Your task to perform on an android device: remove spam from my inbox in the gmail app Image 0: 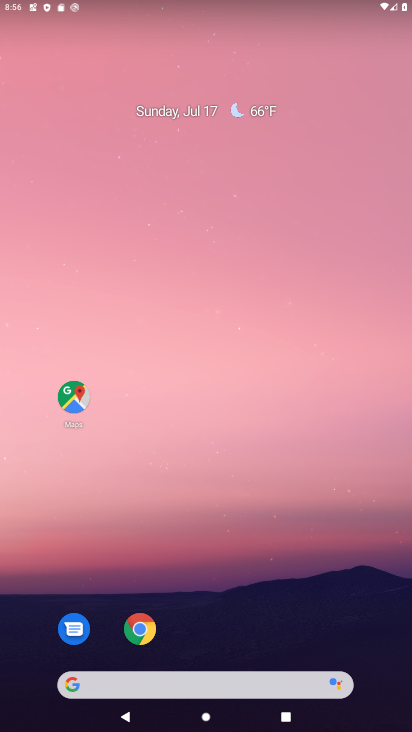
Step 0: press home button
Your task to perform on an android device: remove spam from my inbox in the gmail app Image 1: 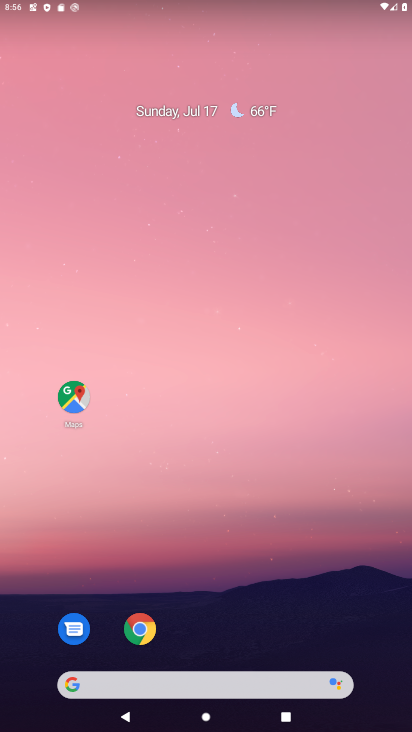
Step 1: drag from (217, 650) to (247, 3)
Your task to perform on an android device: remove spam from my inbox in the gmail app Image 2: 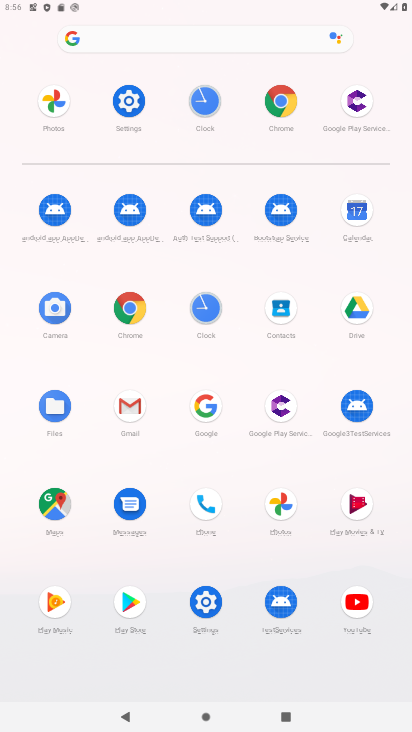
Step 2: click (129, 397)
Your task to perform on an android device: remove spam from my inbox in the gmail app Image 3: 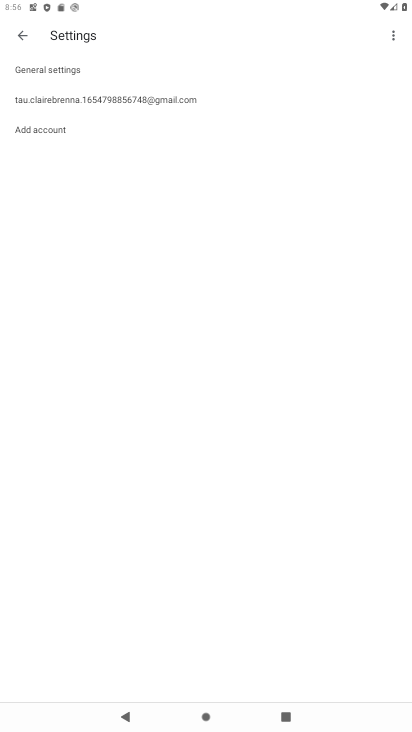
Step 3: click (17, 33)
Your task to perform on an android device: remove spam from my inbox in the gmail app Image 4: 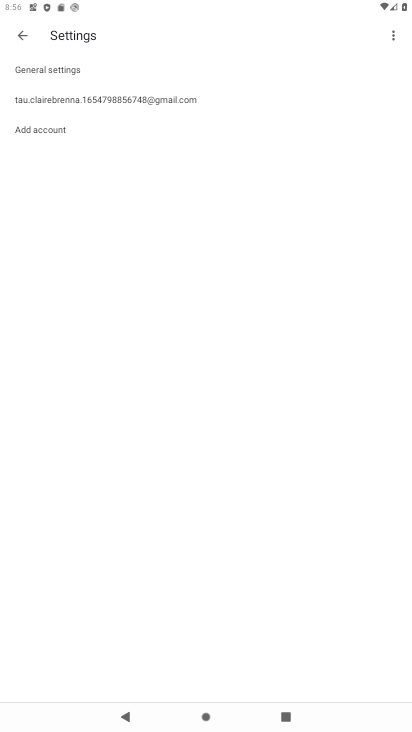
Step 4: click (24, 38)
Your task to perform on an android device: remove spam from my inbox in the gmail app Image 5: 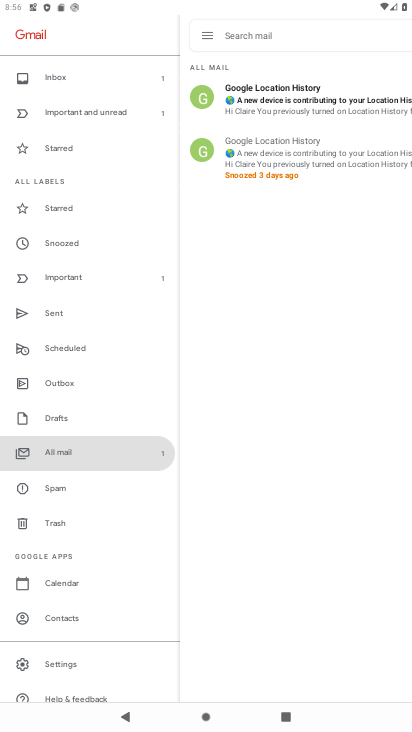
Step 5: click (49, 492)
Your task to perform on an android device: remove spam from my inbox in the gmail app Image 6: 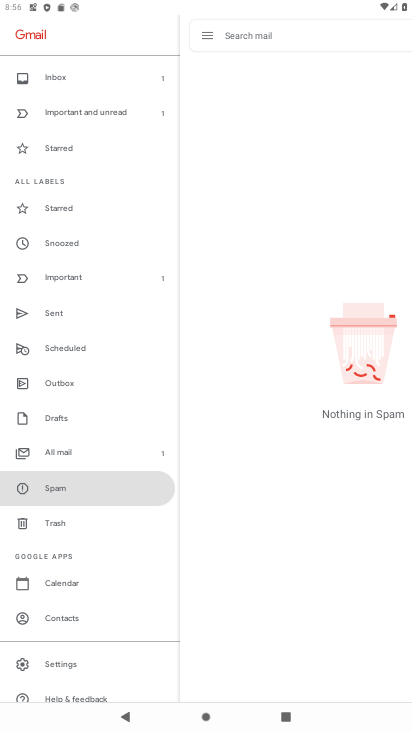
Step 6: task complete